Your task to perform on an android device: empty trash in google photos Image 0: 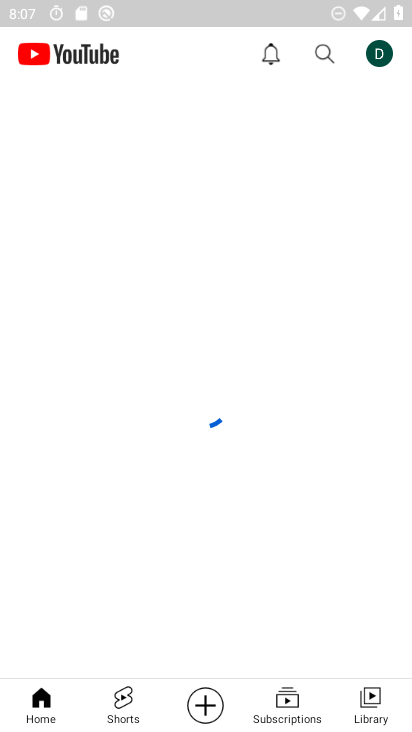
Step 0: drag from (154, 682) to (202, 481)
Your task to perform on an android device: empty trash in google photos Image 1: 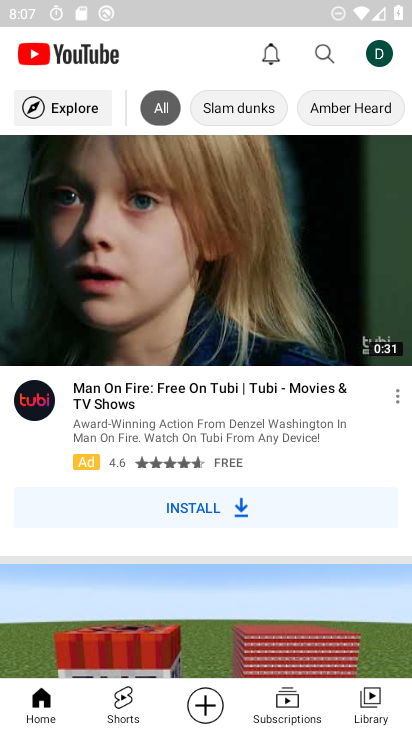
Step 1: press home button
Your task to perform on an android device: empty trash in google photos Image 2: 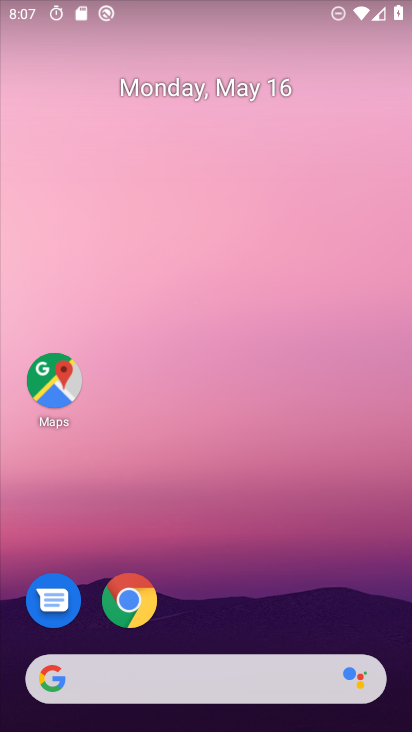
Step 2: drag from (135, 648) to (275, 201)
Your task to perform on an android device: empty trash in google photos Image 3: 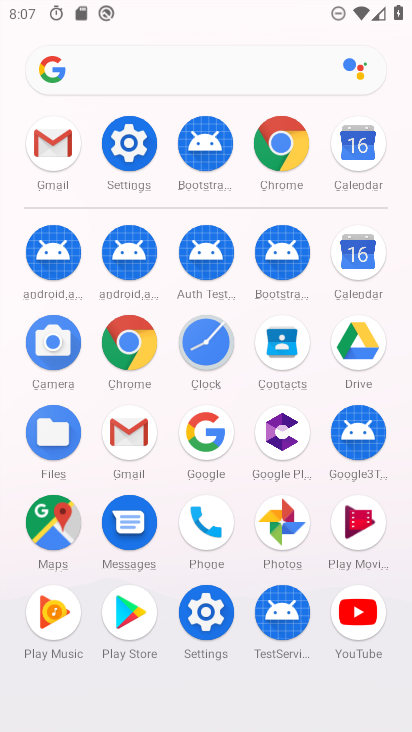
Step 3: click (283, 528)
Your task to perform on an android device: empty trash in google photos Image 4: 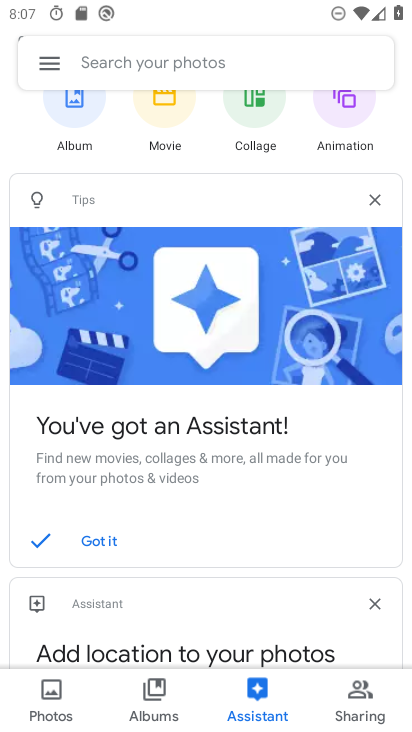
Step 4: click (51, 65)
Your task to perform on an android device: empty trash in google photos Image 5: 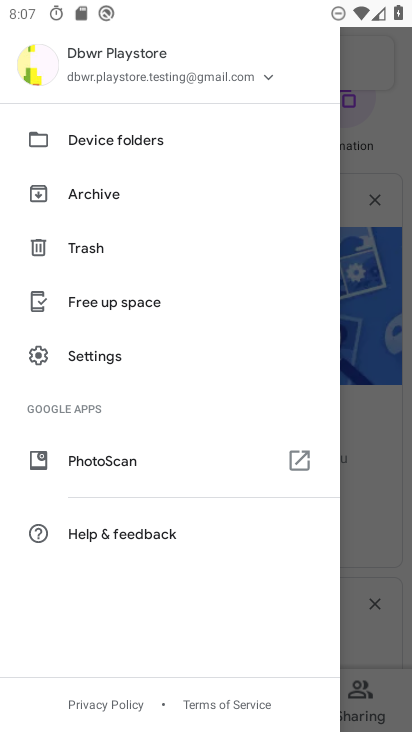
Step 5: click (76, 251)
Your task to perform on an android device: empty trash in google photos Image 6: 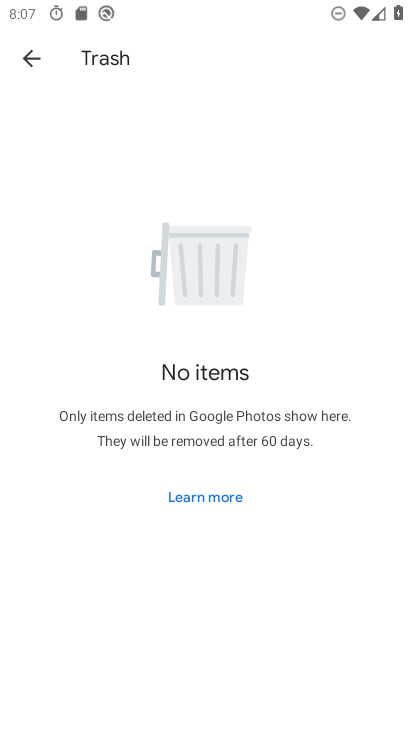
Step 6: task complete